Your task to perform on an android device: stop showing notifications on the lock screen Image 0: 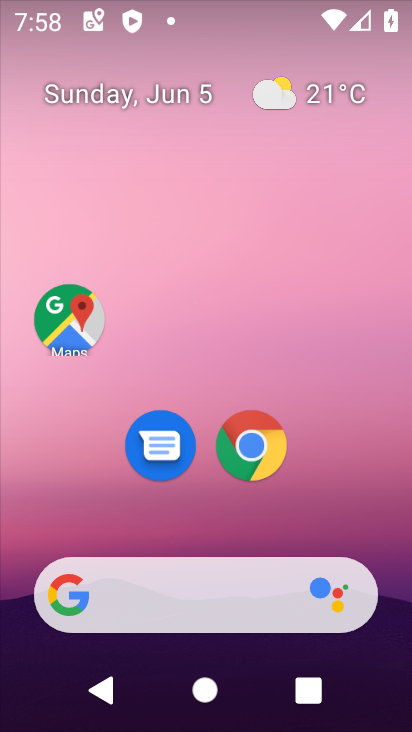
Step 0: drag from (385, 508) to (357, 189)
Your task to perform on an android device: stop showing notifications on the lock screen Image 1: 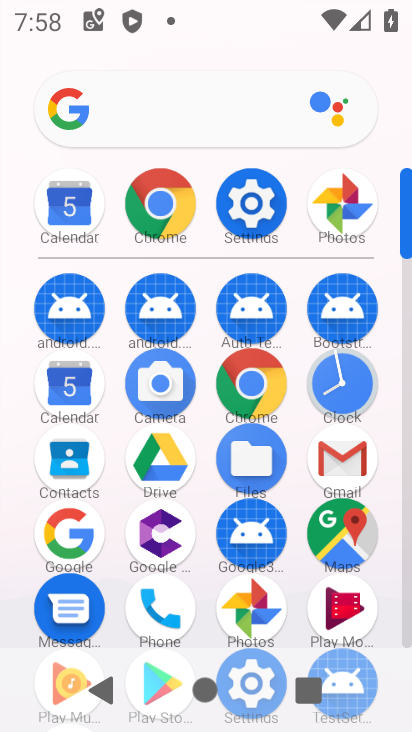
Step 1: click (256, 198)
Your task to perform on an android device: stop showing notifications on the lock screen Image 2: 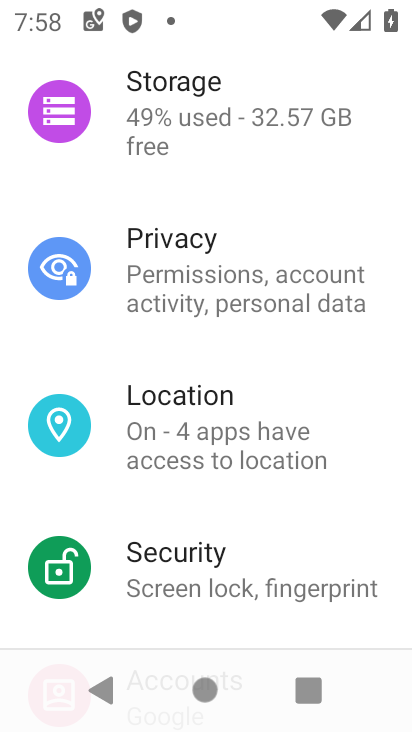
Step 2: drag from (305, 367) to (280, 69)
Your task to perform on an android device: stop showing notifications on the lock screen Image 3: 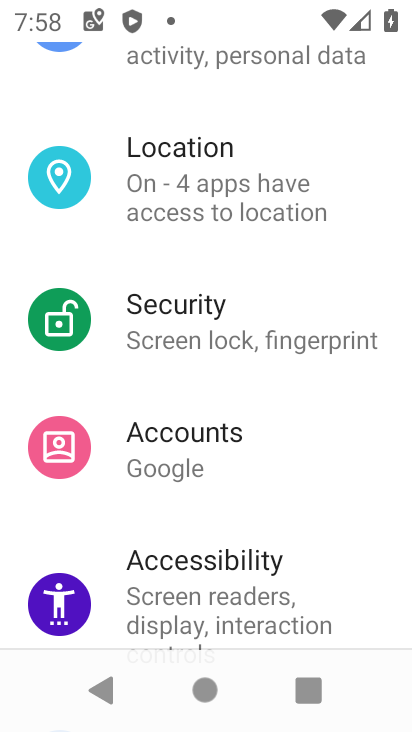
Step 3: drag from (285, 259) to (301, 725)
Your task to perform on an android device: stop showing notifications on the lock screen Image 4: 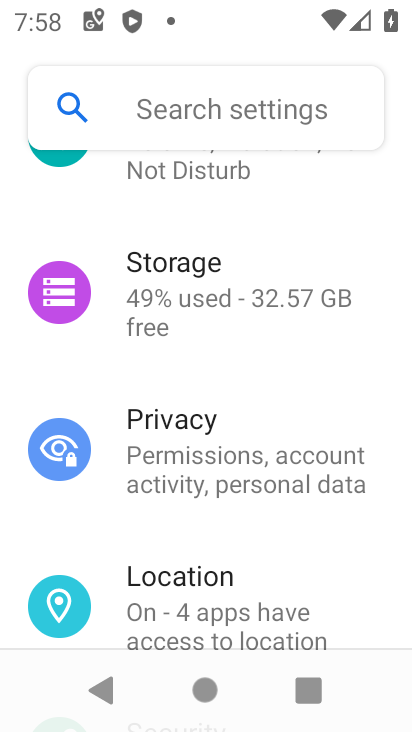
Step 4: drag from (85, 217) to (218, 731)
Your task to perform on an android device: stop showing notifications on the lock screen Image 5: 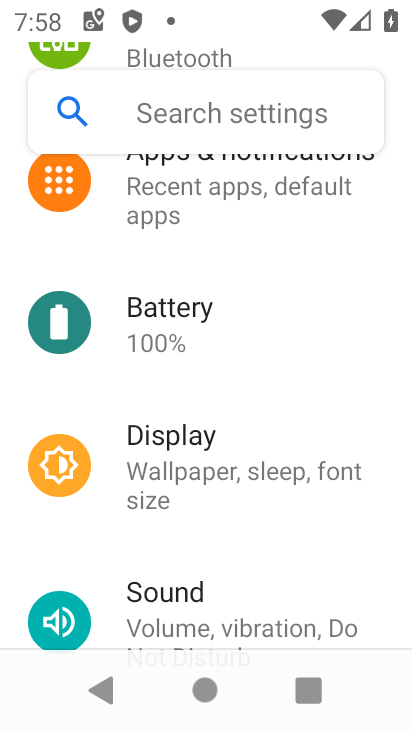
Step 5: drag from (67, 249) to (125, 479)
Your task to perform on an android device: stop showing notifications on the lock screen Image 6: 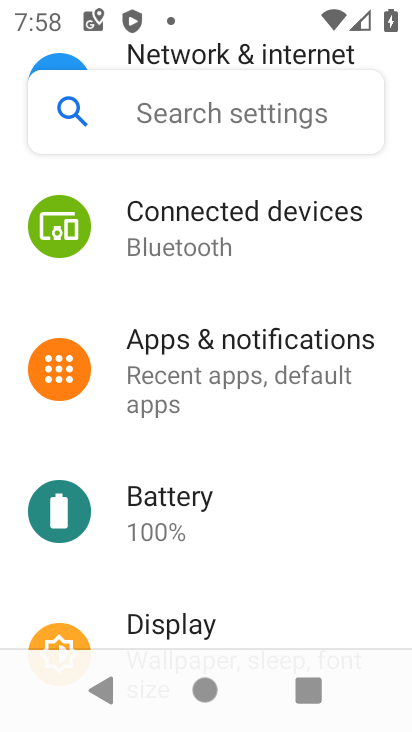
Step 6: click (135, 380)
Your task to perform on an android device: stop showing notifications on the lock screen Image 7: 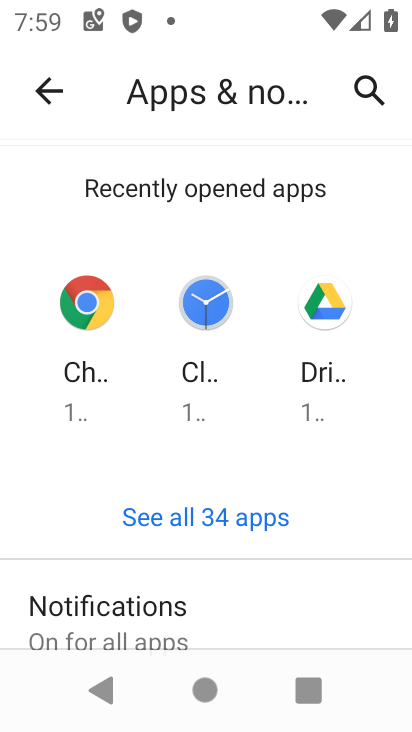
Step 7: drag from (70, 577) to (122, 117)
Your task to perform on an android device: stop showing notifications on the lock screen Image 8: 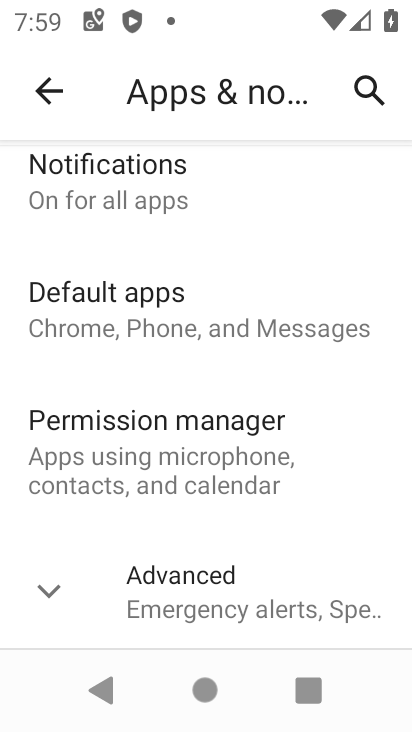
Step 8: drag from (73, 600) to (147, 59)
Your task to perform on an android device: stop showing notifications on the lock screen Image 9: 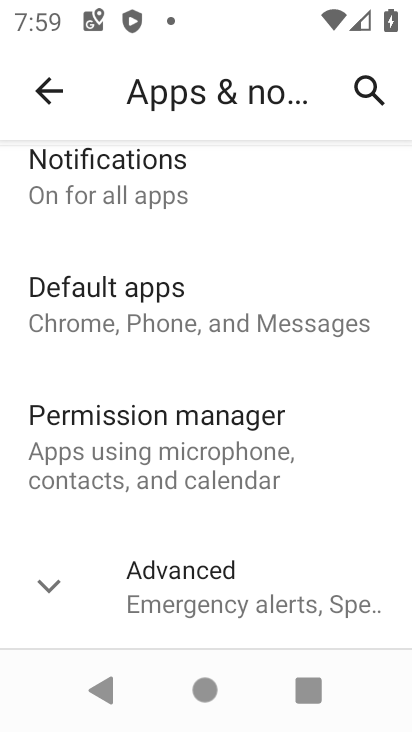
Step 9: drag from (32, 244) to (204, 310)
Your task to perform on an android device: stop showing notifications on the lock screen Image 10: 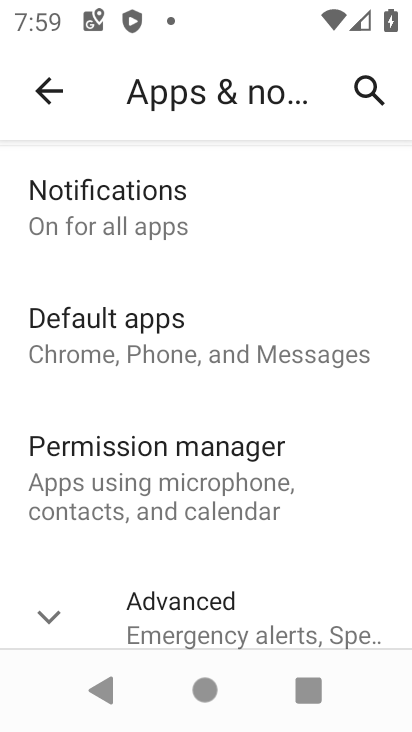
Step 10: click (57, 213)
Your task to perform on an android device: stop showing notifications on the lock screen Image 11: 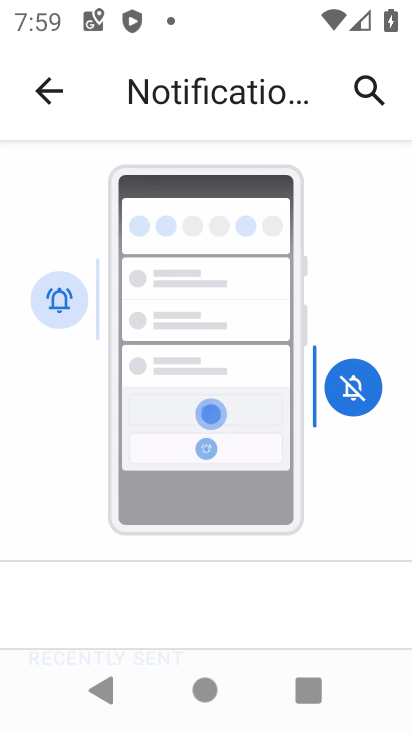
Step 11: drag from (67, 603) to (88, 108)
Your task to perform on an android device: stop showing notifications on the lock screen Image 12: 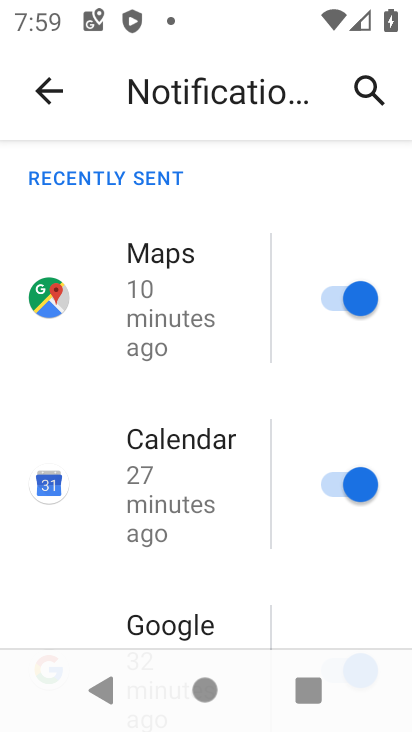
Step 12: drag from (56, 580) to (71, 93)
Your task to perform on an android device: stop showing notifications on the lock screen Image 13: 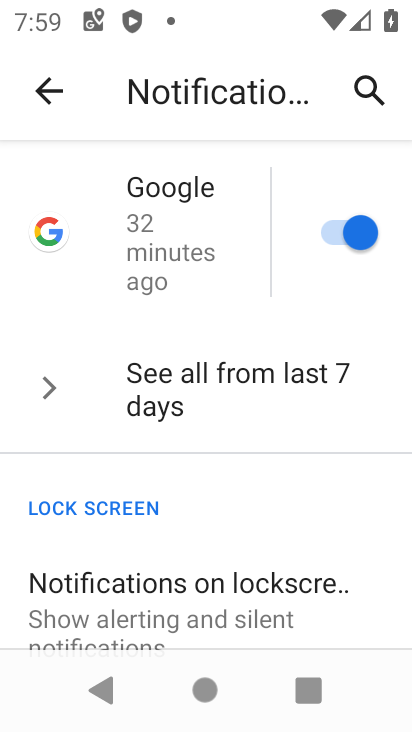
Step 13: drag from (312, 533) to (290, 378)
Your task to perform on an android device: stop showing notifications on the lock screen Image 14: 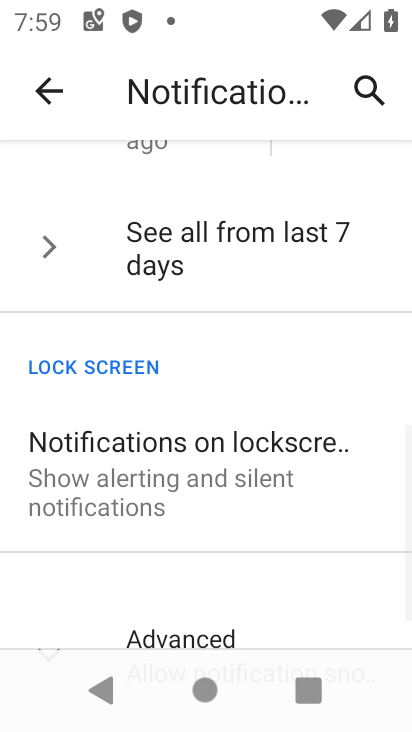
Step 14: click (218, 483)
Your task to perform on an android device: stop showing notifications on the lock screen Image 15: 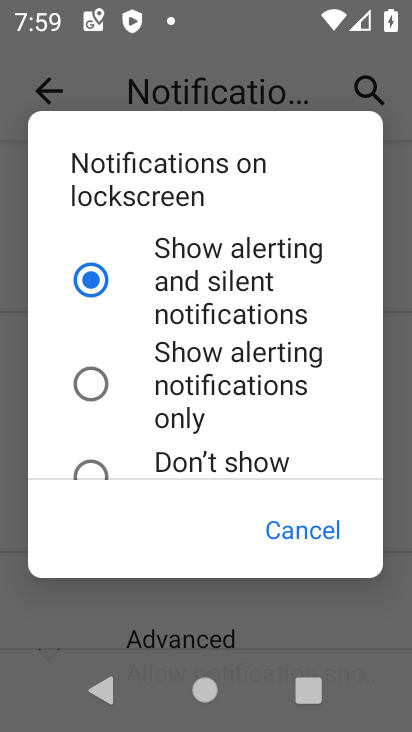
Step 15: click (88, 471)
Your task to perform on an android device: stop showing notifications on the lock screen Image 16: 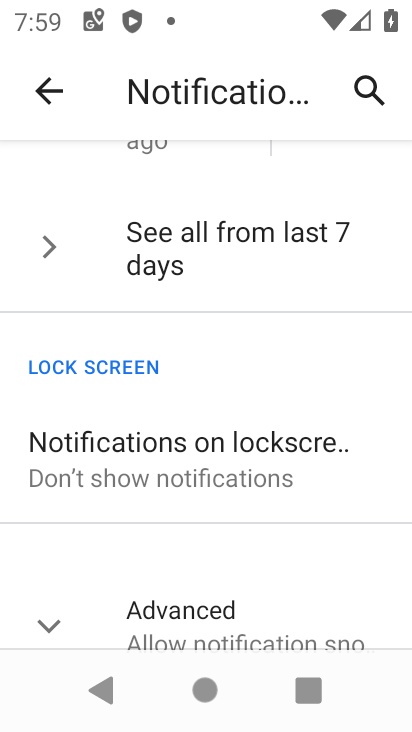
Step 16: task complete